Your task to perform on an android device: Search for the best rated headphones on AliExpress. Image 0: 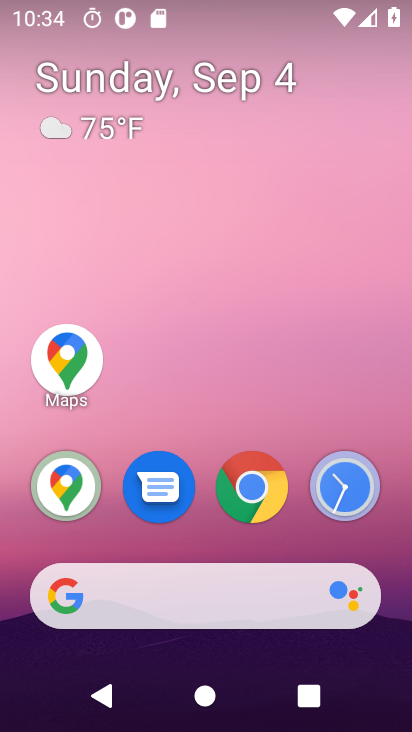
Step 0: click (344, 503)
Your task to perform on an android device: Search for the best rated headphones on AliExpress. Image 1: 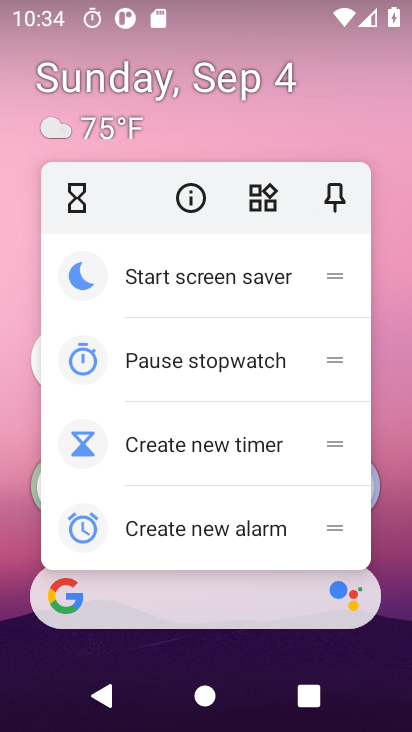
Step 1: click (59, 215)
Your task to perform on an android device: Search for the best rated headphones on AliExpress. Image 2: 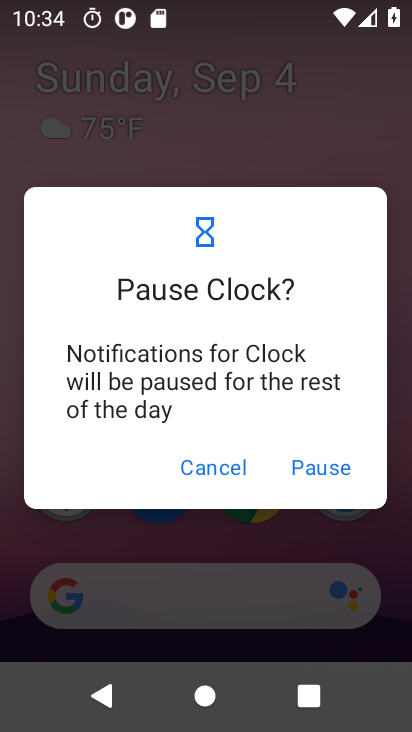
Step 2: click (341, 489)
Your task to perform on an android device: Search for the best rated headphones on AliExpress. Image 3: 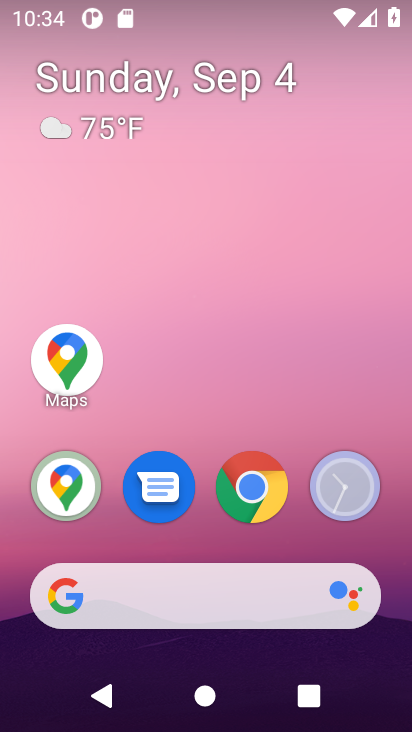
Step 3: task complete